Your task to perform on an android device: delete location history Image 0: 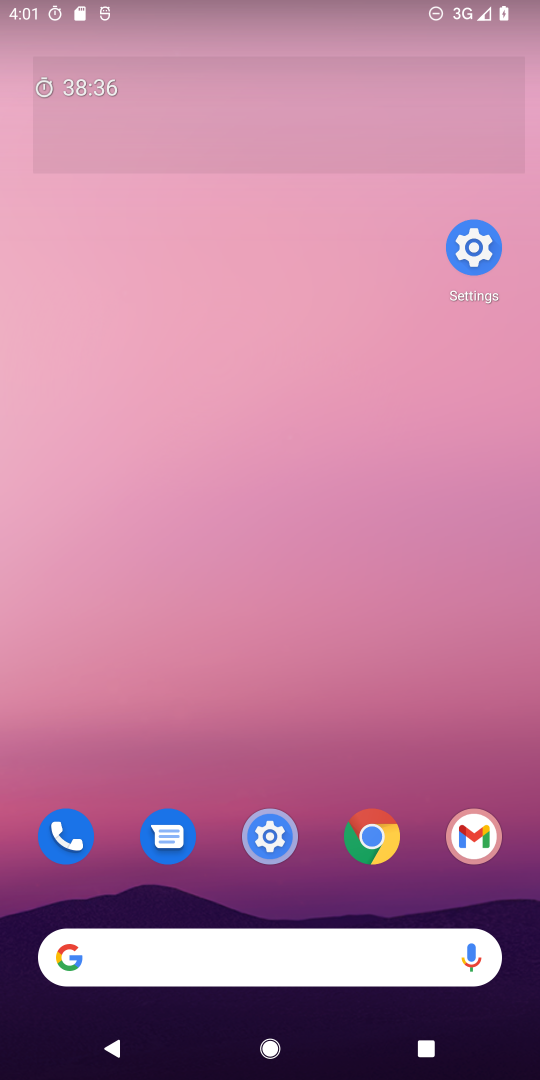
Step 0: drag from (233, 778) to (251, 35)
Your task to perform on an android device: delete location history Image 1: 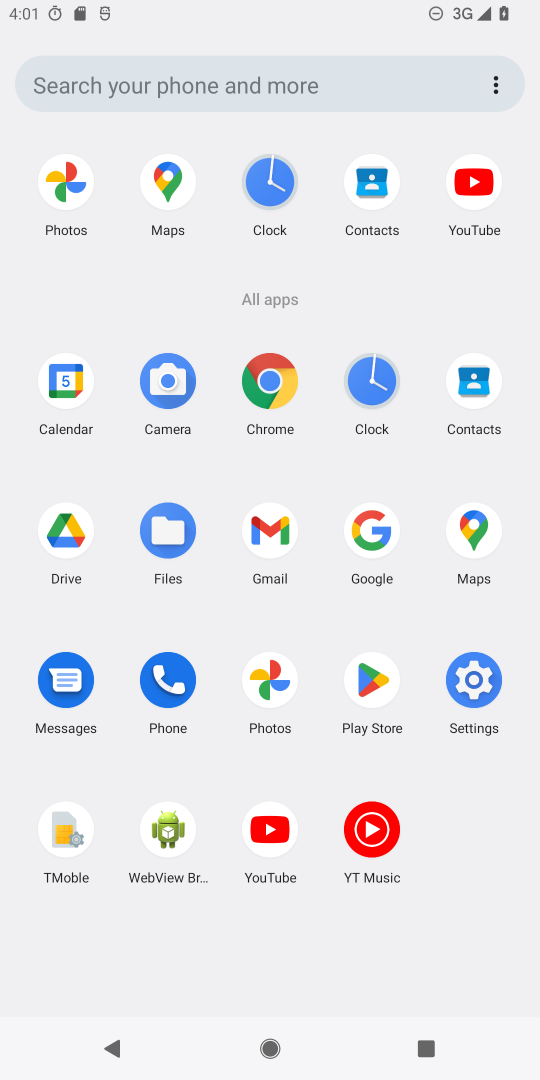
Step 1: click (475, 546)
Your task to perform on an android device: delete location history Image 2: 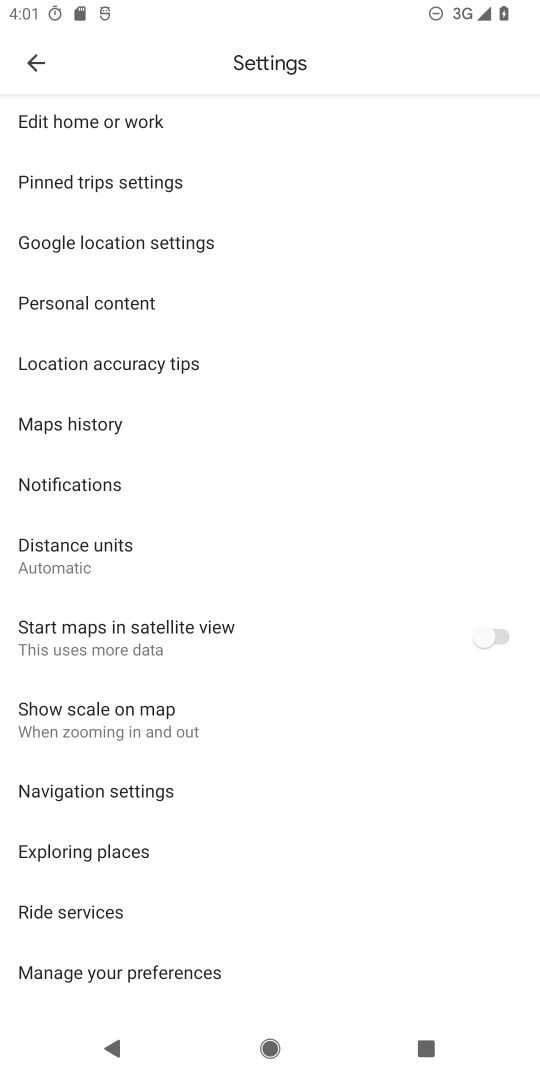
Step 2: click (30, 78)
Your task to perform on an android device: delete location history Image 3: 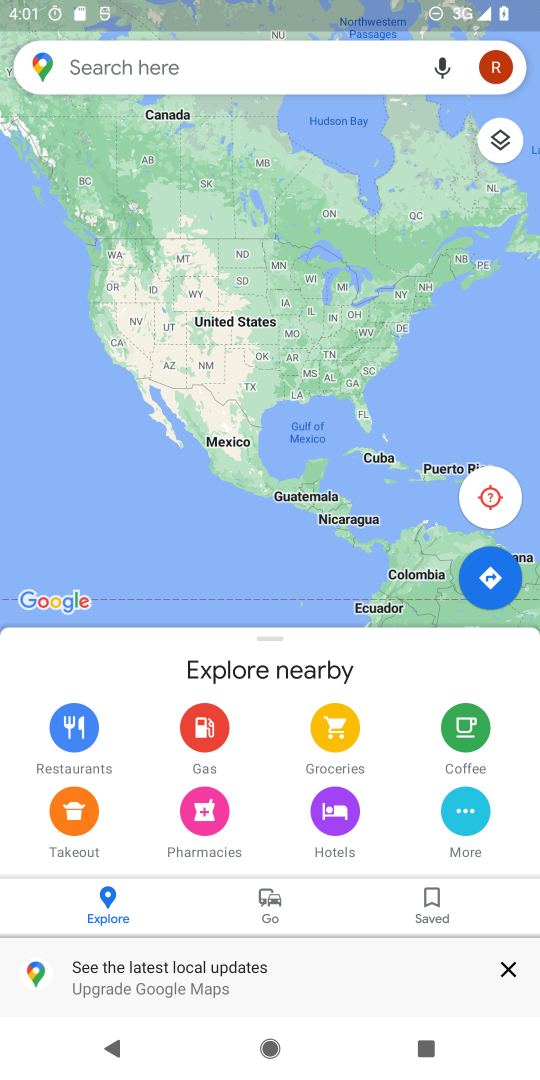
Step 3: click (511, 967)
Your task to perform on an android device: delete location history Image 4: 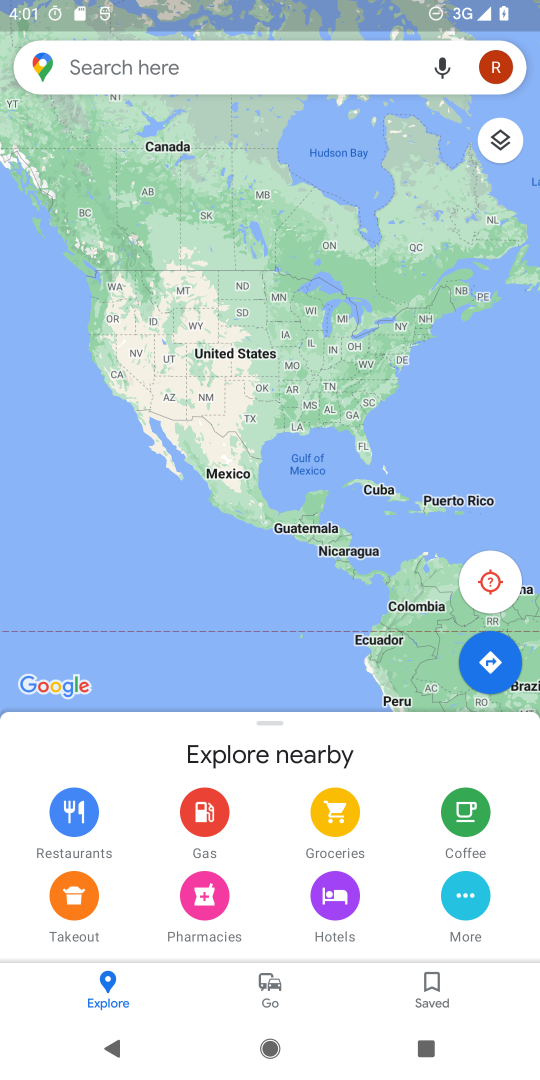
Step 4: click (255, 992)
Your task to perform on an android device: delete location history Image 5: 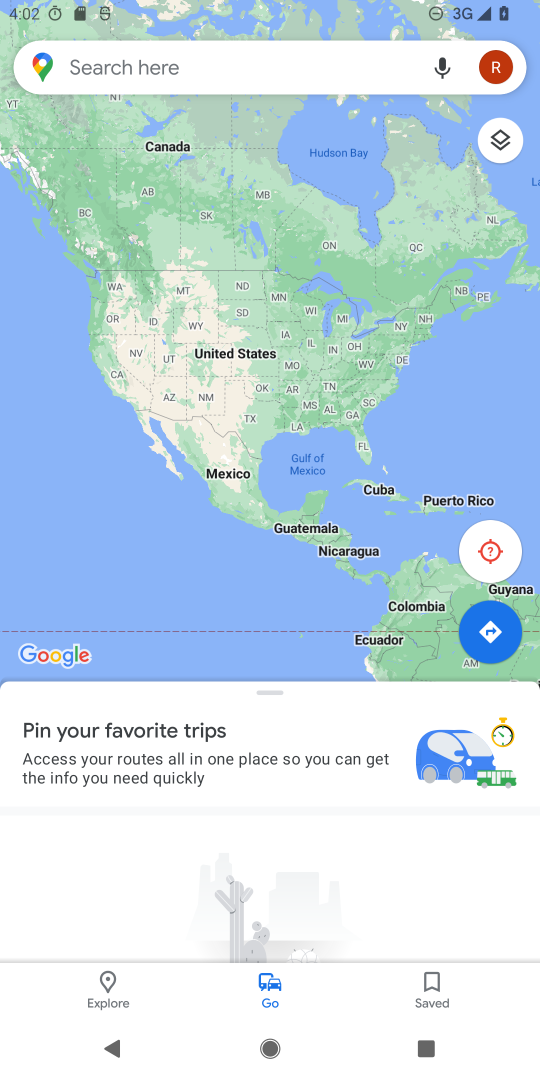
Step 5: click (439, 995)
Your task to perform on an android device: delete location history Image 6: 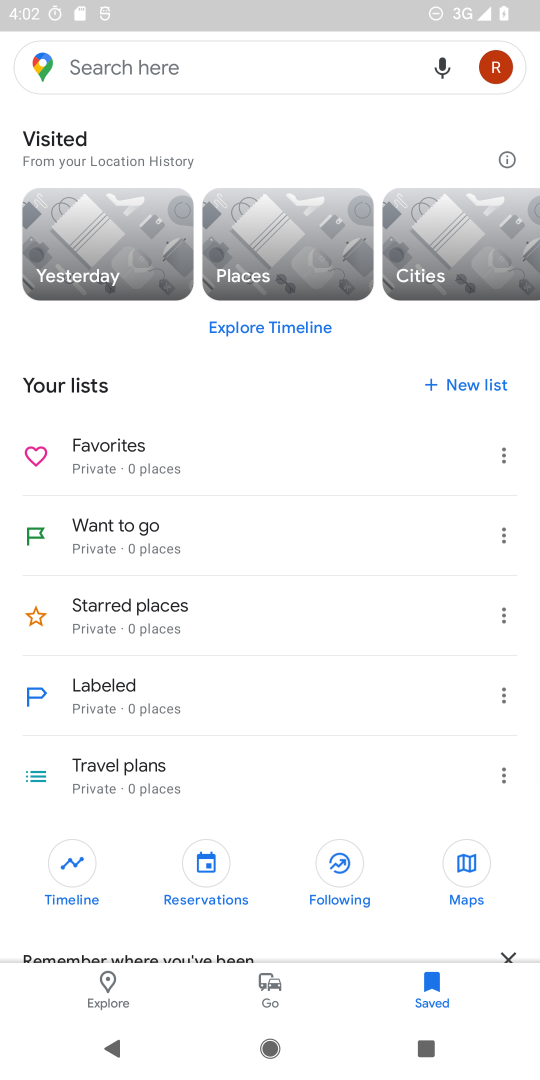
Step 6: drag from (148, 752) to (182, 452)
Your task to perform on an android device: delete location history Image 7: 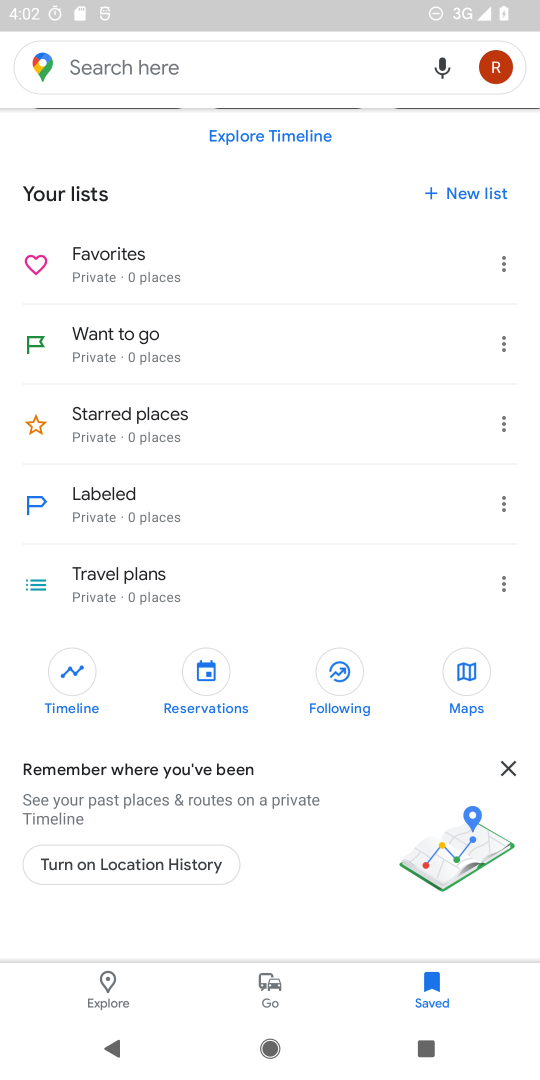
Step 7: click (290, 144)
Your task to perform on an android device: delete location history Image 8: 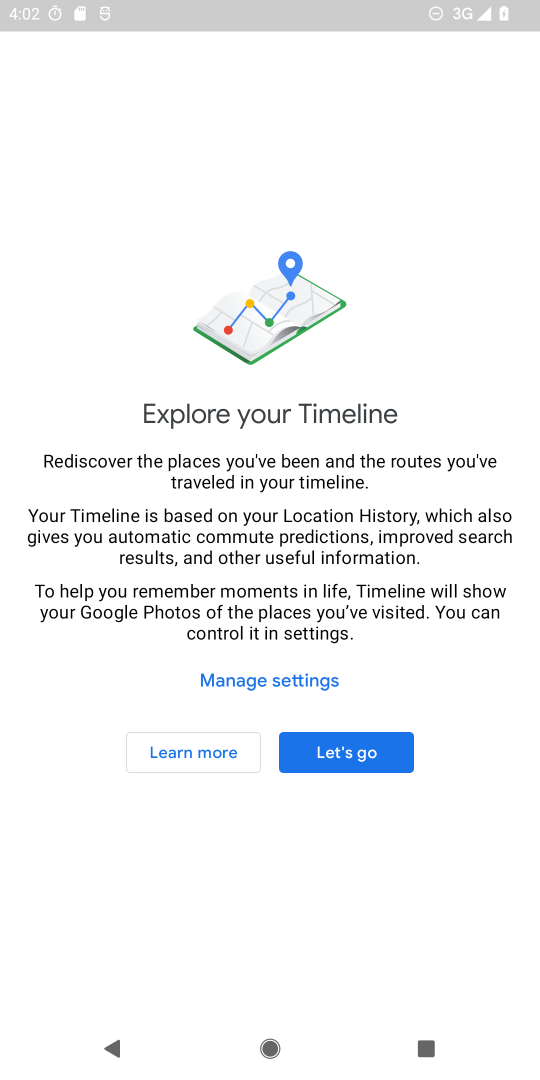
Step 8: click (337, 747)
Your task to perform on an android device: delete location history Image 9: 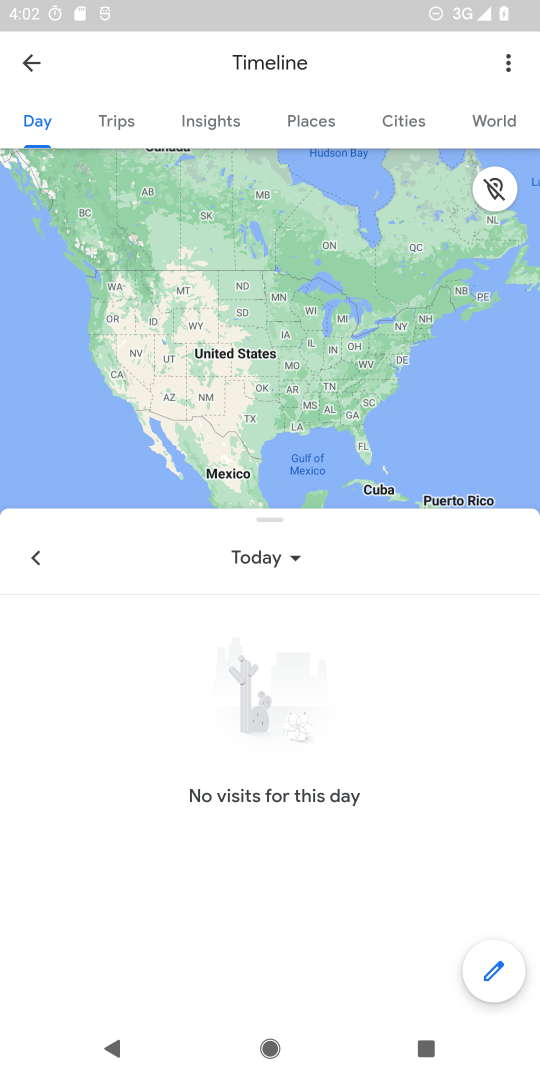
Step 9: click (507, 55)
Your task to perform on an android device: delete location history Image 10: 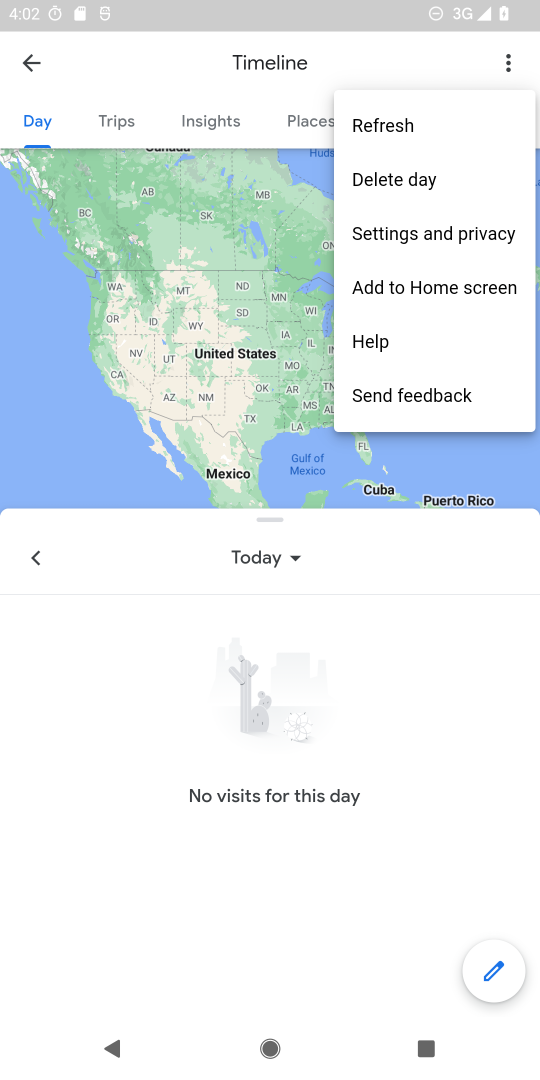
Step 10: click (453, 233)
Your task to perform on an android device: delete location history Image 11: 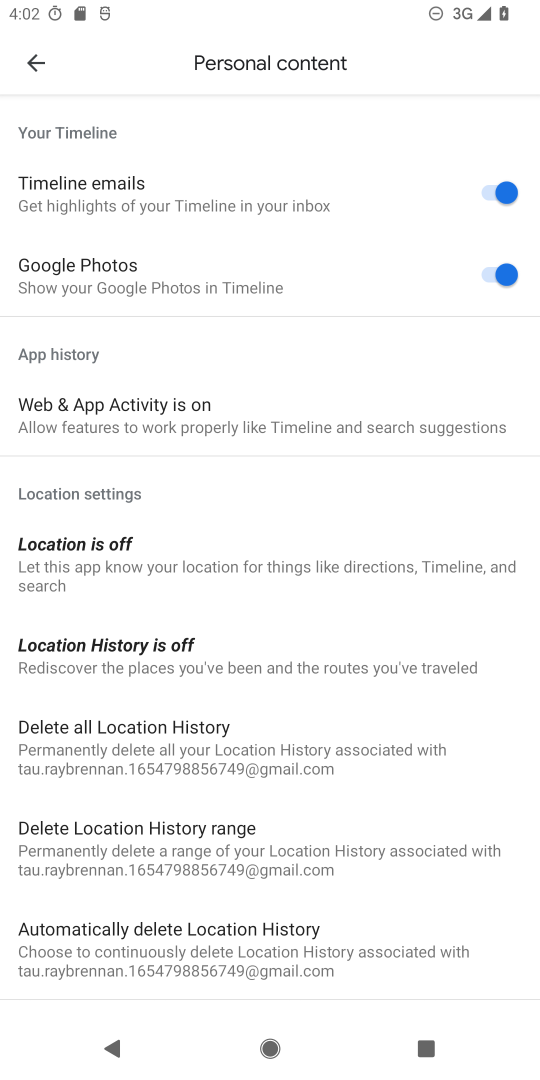
Step 11: click (228, 759)
Your task to perform on an android device: delete location history Image 12: 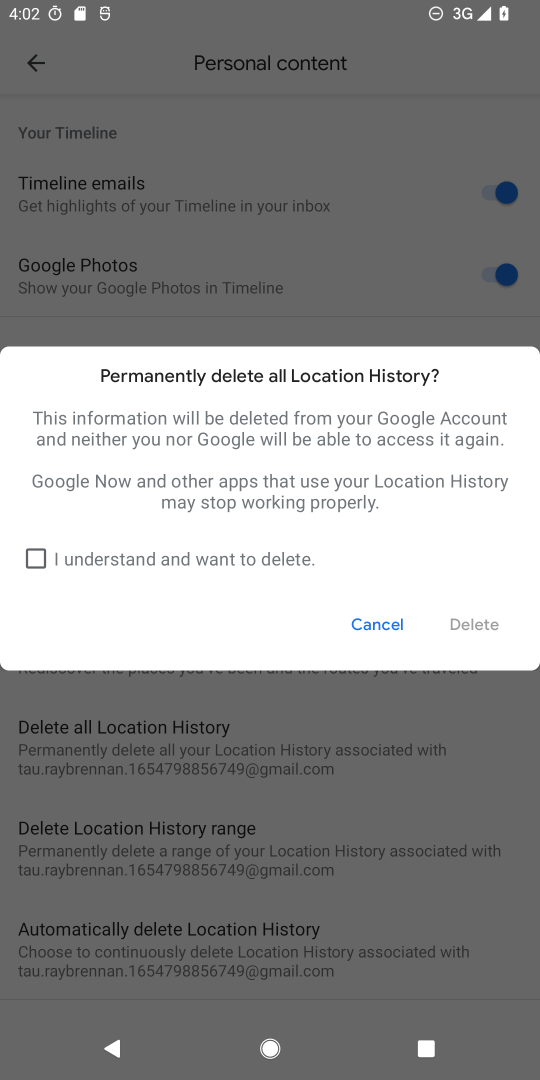
Step 12: click (176, 551)
Your task to perform on an android device: delete location history Image 13: 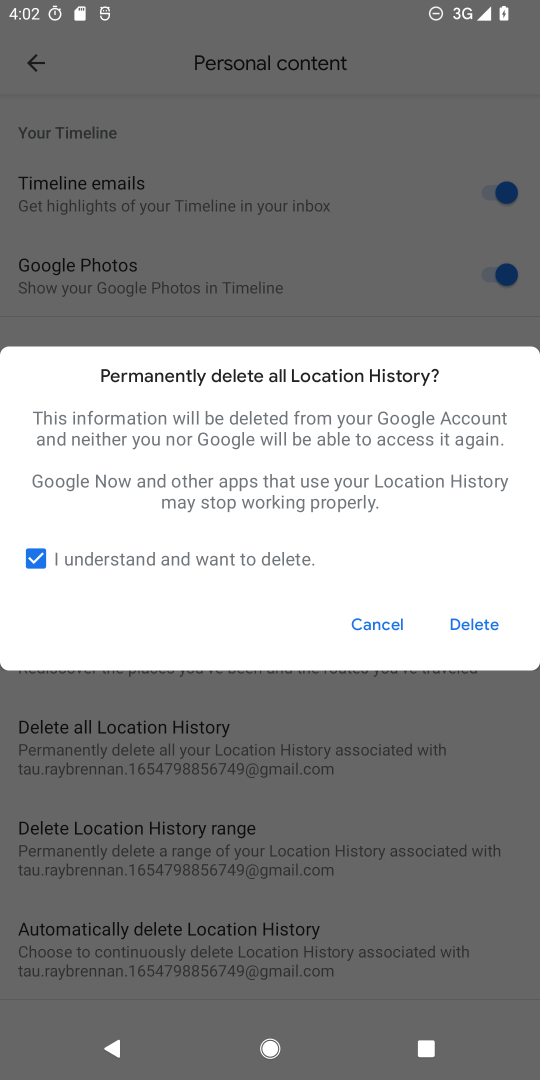
Step 13: click (470, 615)
Your task to perform on an android device: delete location history Image 14: 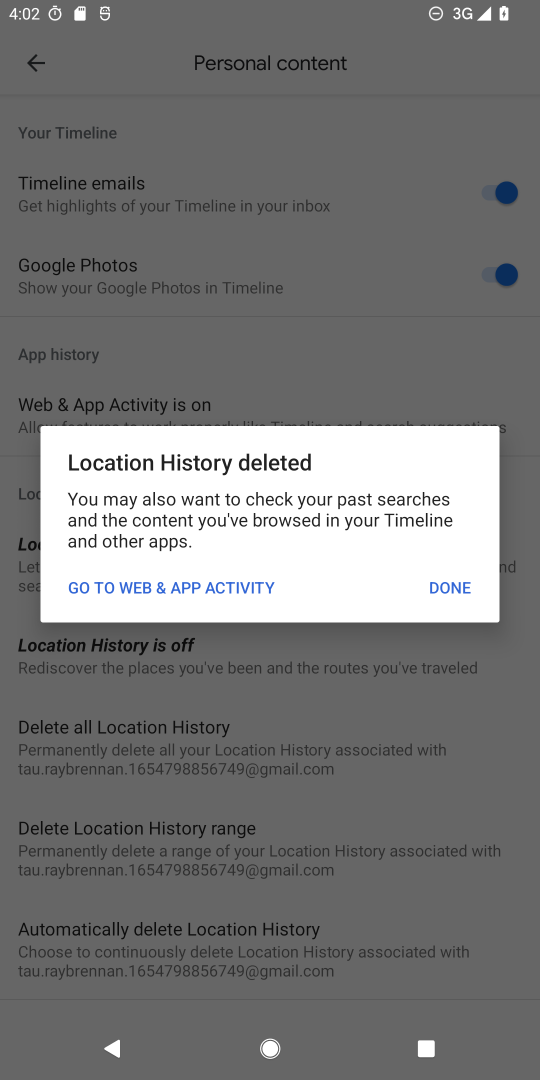
Step 14: click (444, 591)
Your task to perform on an android device: delete location history Image 15: 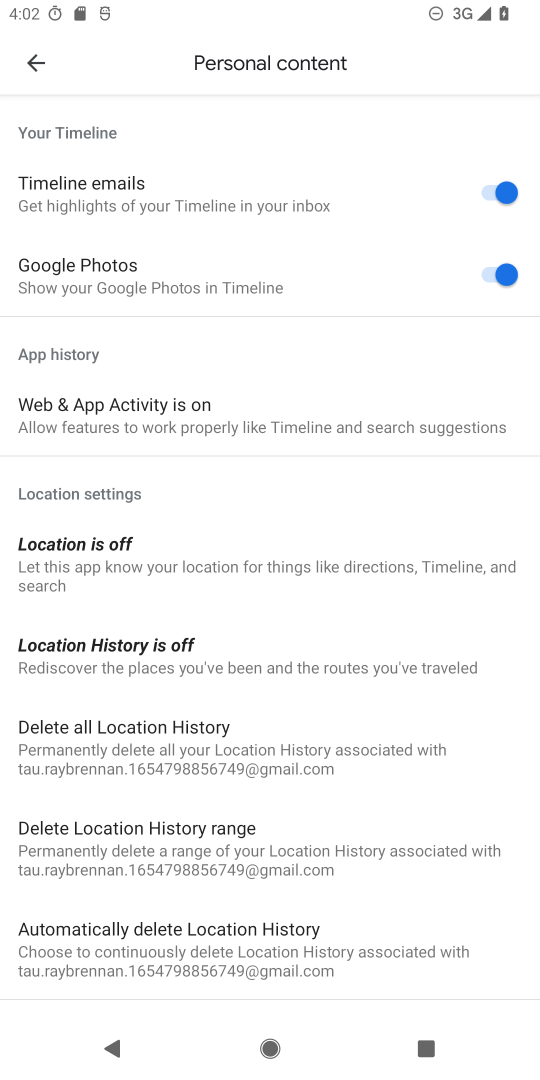
Step 15: task complete